Your task to perform on an android device: change keyboard looks Image 0: 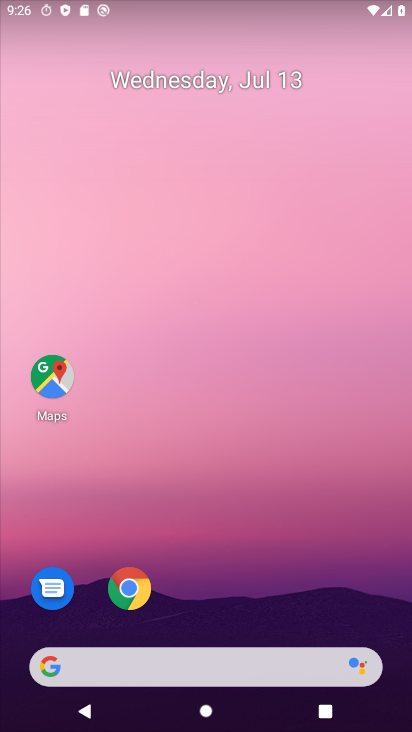
Step 0: drag from (310, 550) to (282, 42)
Your task to perform on an android device: change keyboard looks Image 1: 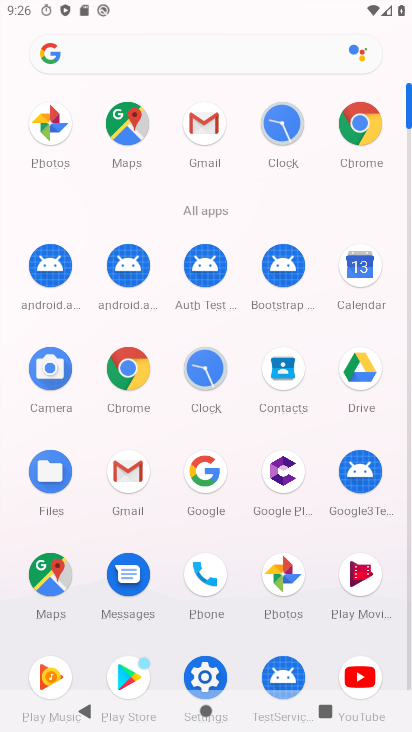
Step 1: click (209, 665)
Your task to perform on an android device: change keyboard looks Image 2: 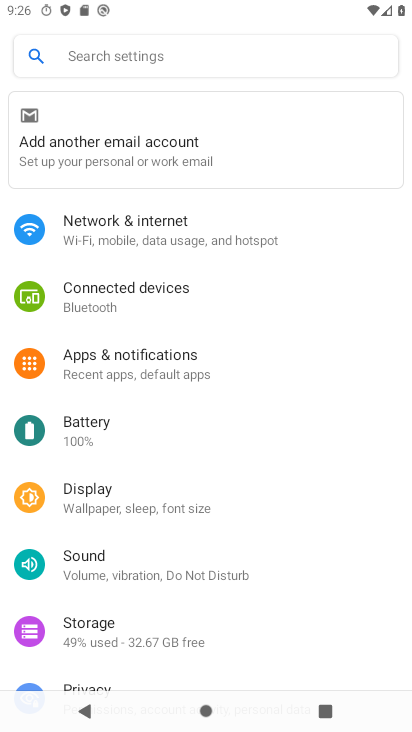
Step 2: drag from (209, 665) to (344, 54)
Your task to perform on an android device: change keyboard looks Image 3: 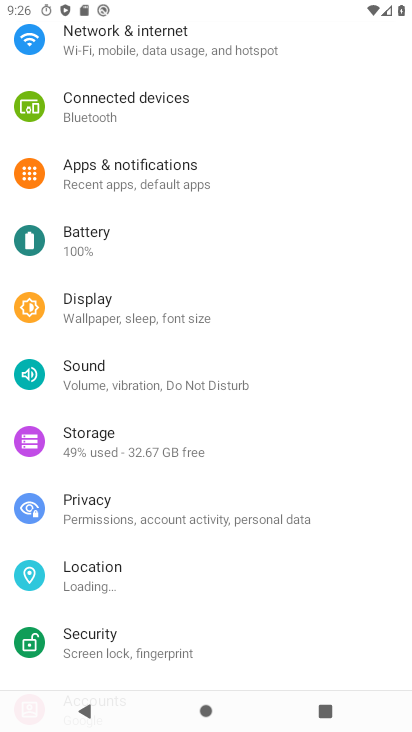
Step 3: drag from (280, 493) to (237, 5)
Your task to perform on an android device: change keyboard looks Image 4: 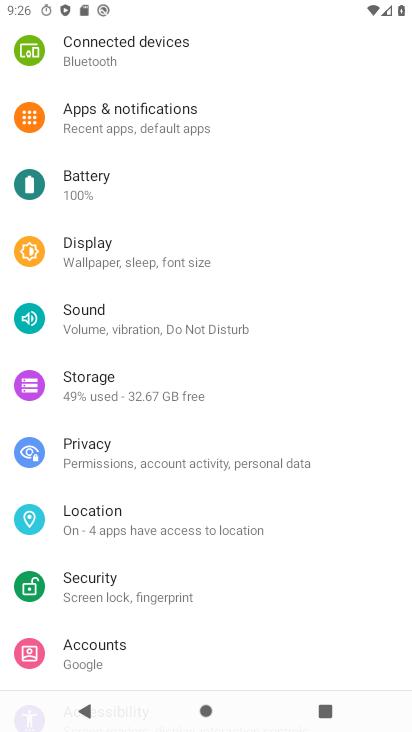
Step 4: drag from (219, 394) to (172, 8)
Your task to perform on an android device: change keyboard looks Image 5: 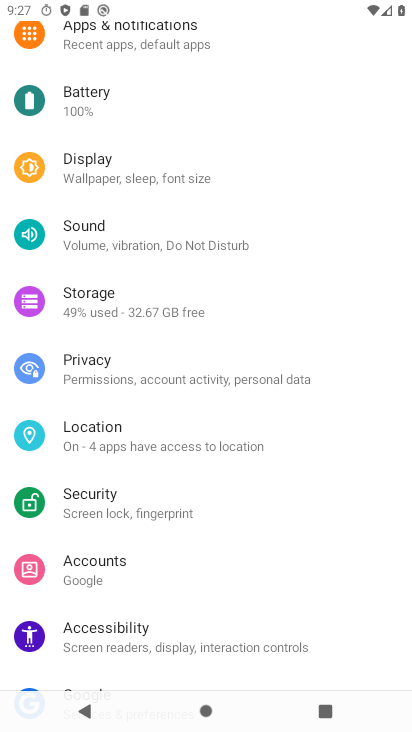
Step 5: drag from (211, 584) to (110, 13)
Your task to perform on an android device: change keyboard looks Image 6: 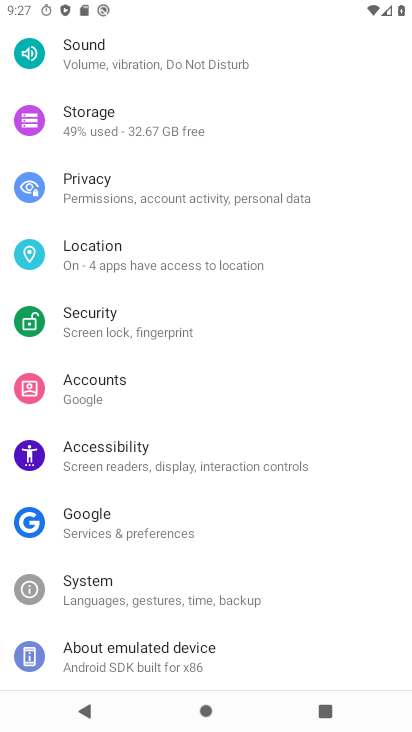
Step 6: click (141, 595)
Your task to perform on an android device: change keyboard looks Image 7: 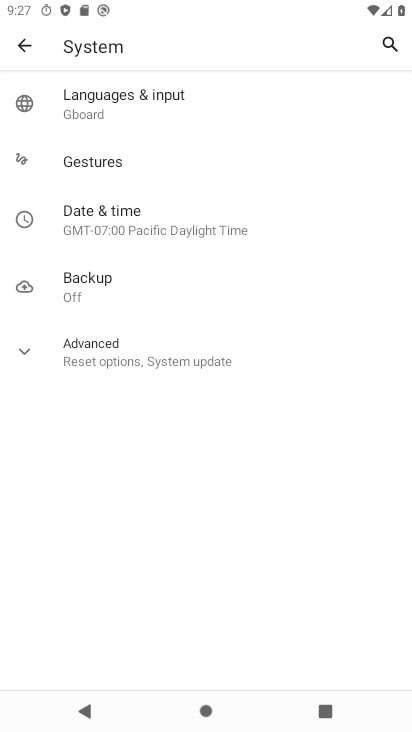
Step 7: click (224, 119)
Your task to perform on an android device: change keyboard looks Image 8: 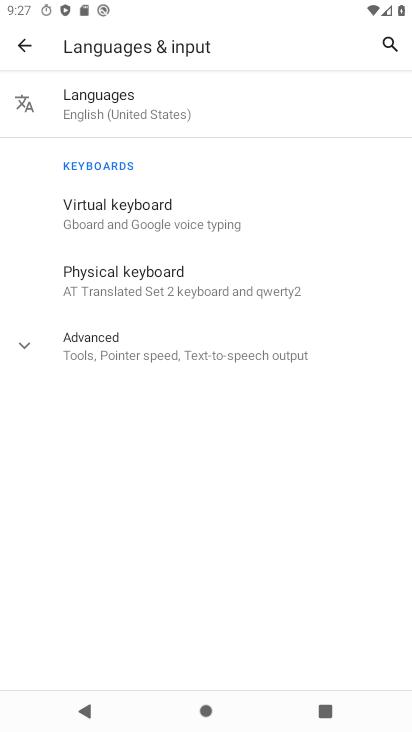
Step 8: click (175, 212)
Your task to perform on an android device: change keyboard looks Image 9: 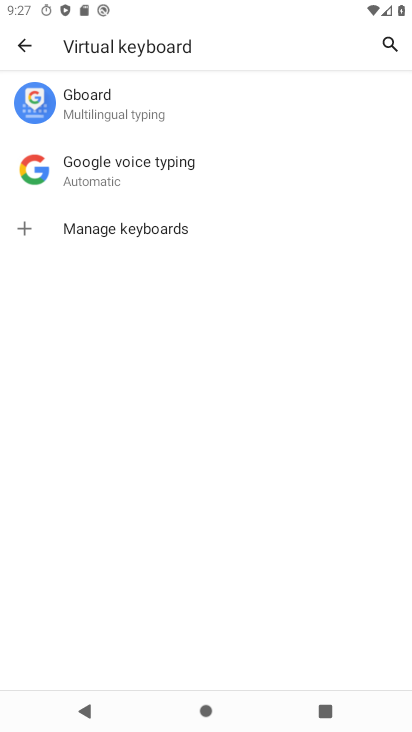
Step 9: click (199, 102)
Your task to perform on an android device: change keyboard looks Image 10: 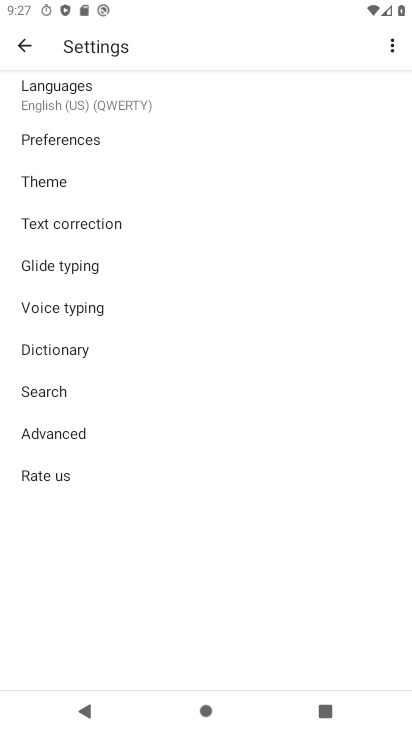
Step 10: click (84, 179)
Your task to perform on an android device: change keyboard looks Image 11: 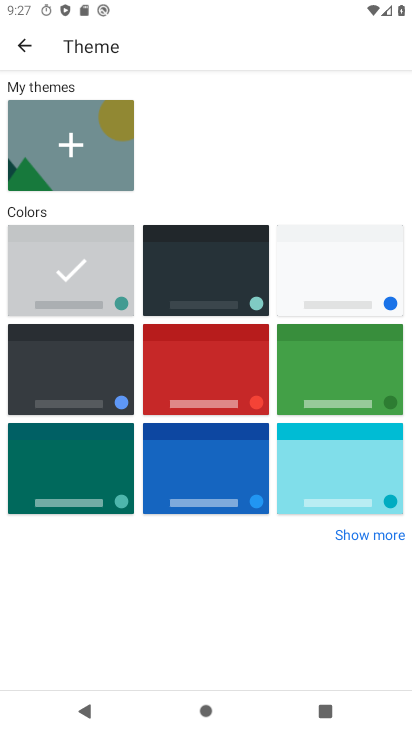
Step 11: click (224, 343)
Your task to perform on an android device: change keyboard looks Image 12: 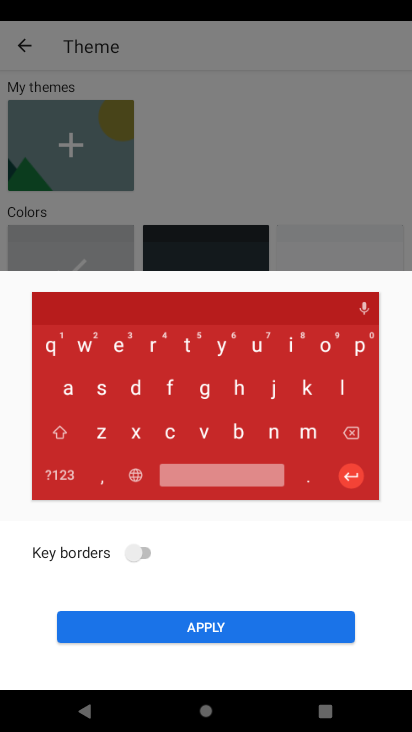
Step 12: click (245, 622)
Your task to perform on an android device: change keyboard looks Image 13: 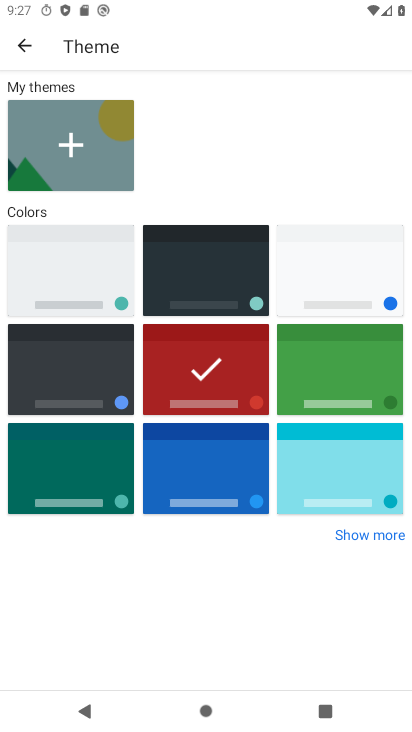
Step 13: task complete